Your task to perform on an android device: empty trash in the gmail app Image 0: 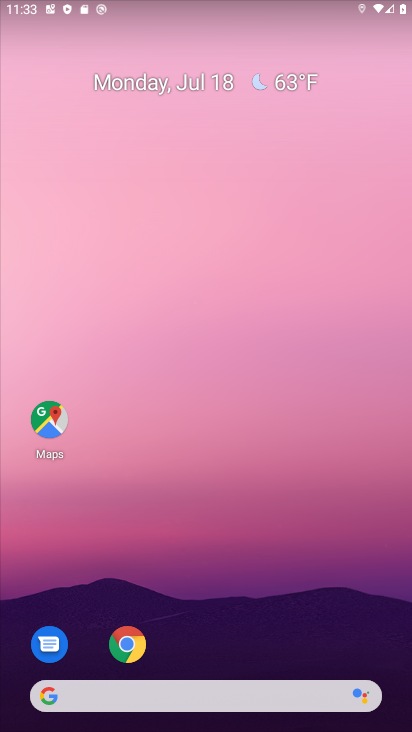
Step 0: drag from (249, 671) to (261, 272)
Your task to perform on an android device: empty trash in the gmail app Image 1: 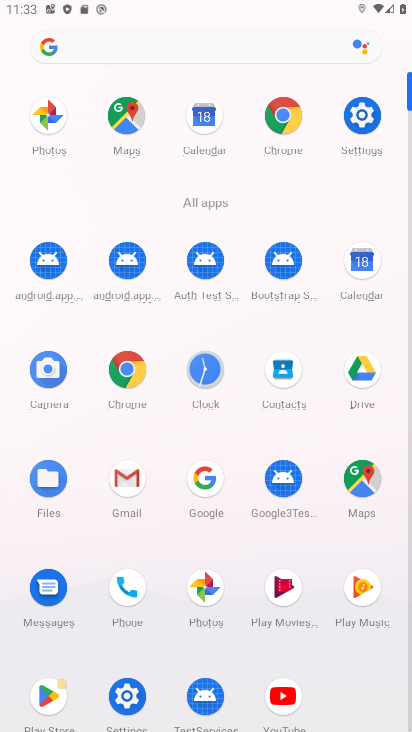
Step 1: click (129, 482)
Your task to perform on an android device: empty trash in the gmail app Image 2: 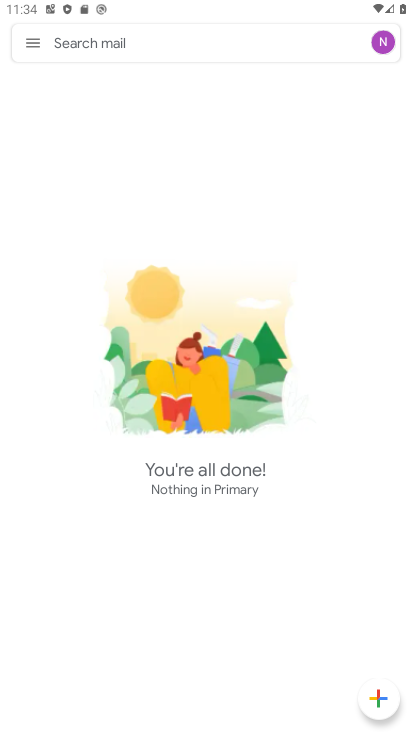
Step 2: click (35, 42)
Your task to perform on an android device: empty trash in the gmail app Image 3: 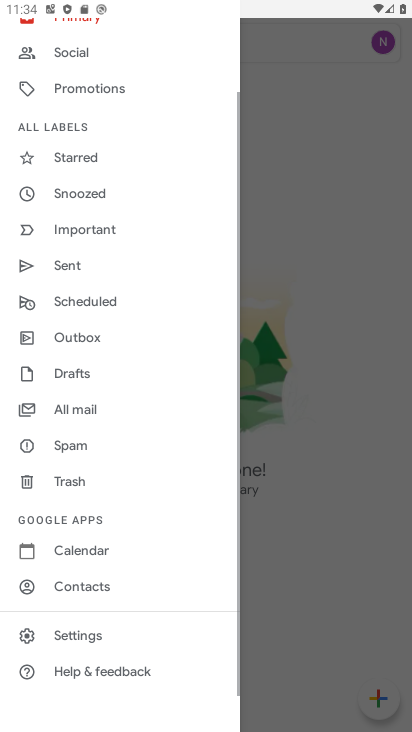
Step 3: click (68, 481)
Your task to perform on an android device: empty trash in the gmail app Image 4: 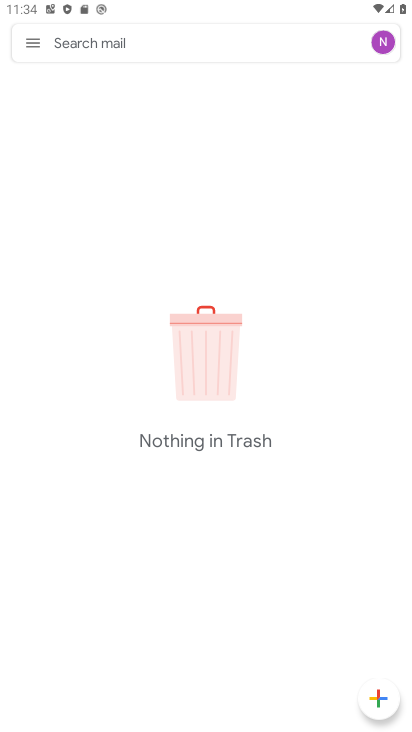
Step 4: task complete